Your task to perform on an android device: Open the web browser Image 0: 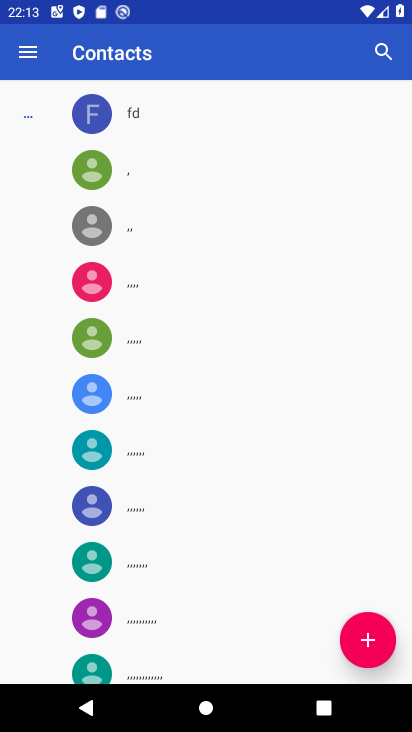
Step 0: press home button
Your task to perform on an android device: Open the web browser Image 1: 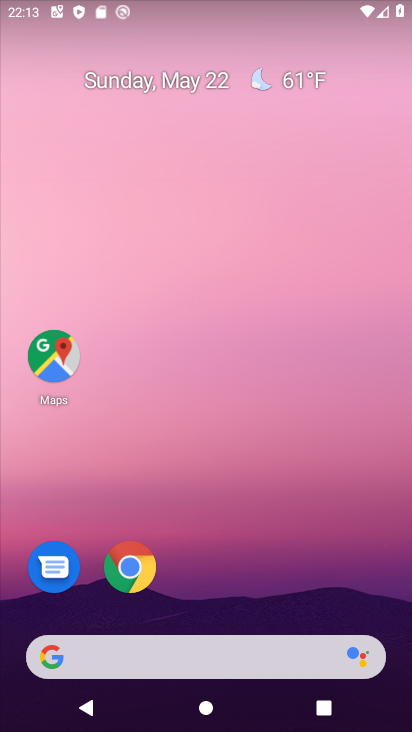
Step 1: click (193, 641)
Your task to perform on an android device: Open the web browser Image 2: 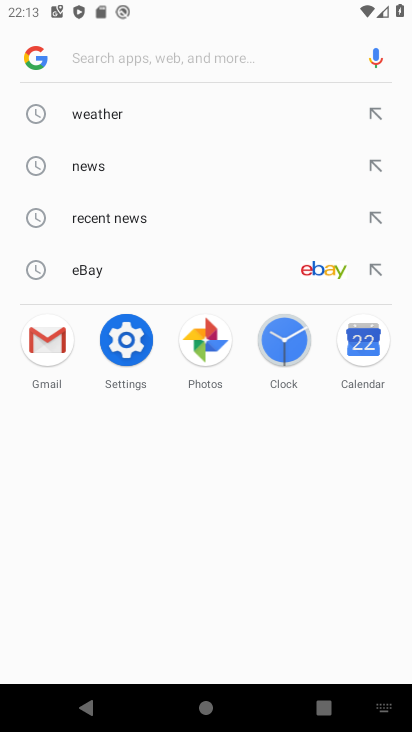
Step 2: task complete